Your task to perform on an android device: toggle javascript in the chrome app Image 0: 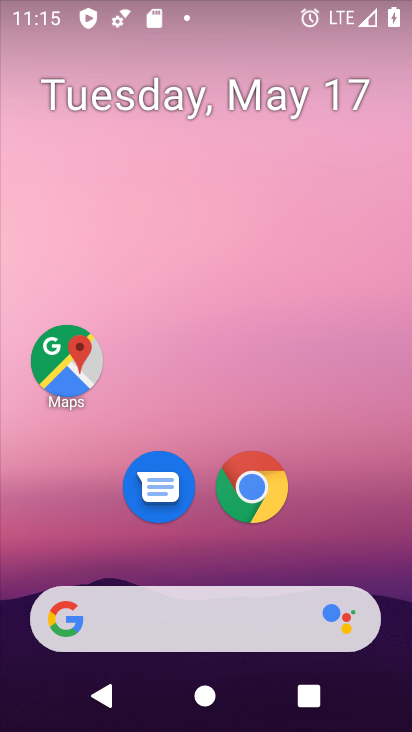
Step 0: press home button
Your task to perform on an android device: toggle javascript in the chrome app Image 1: 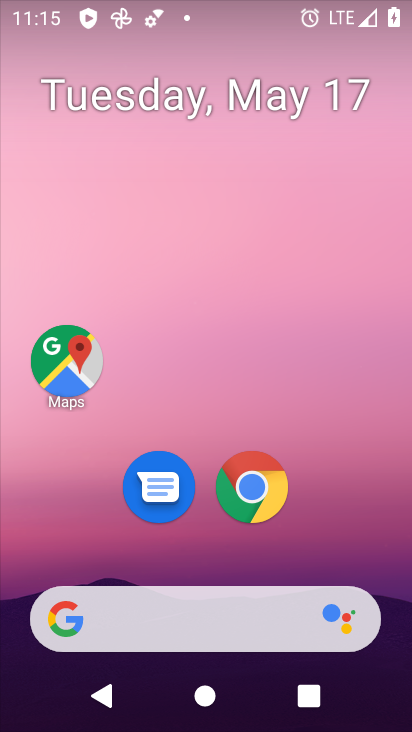
Step 1: click (244, 515)
Your task to perform on an android device: toggle javascript in the chrome app Image 2: 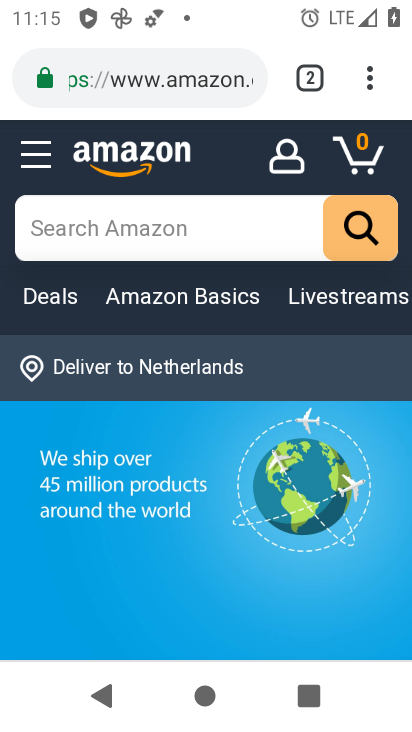
Step 2: drag from (366, 61) to (293, 558)
Your task to perform on an android device: toggle javascript in the chrome app Image 3: 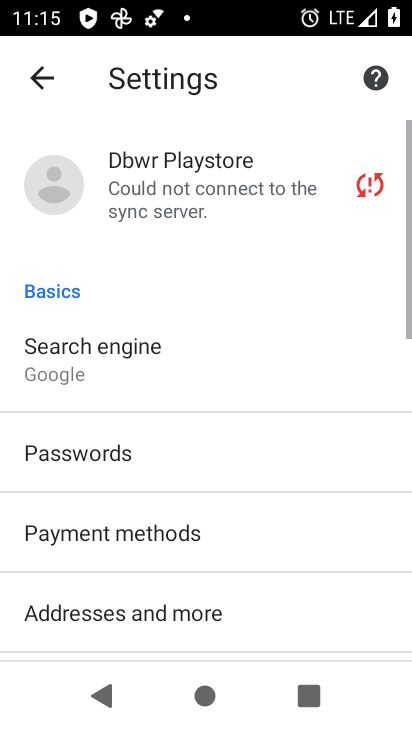
Step 3: drag from (285, 538) to (287, 174)
Your task to perform on an android device: toggle javascript in the chrome app Image 4: 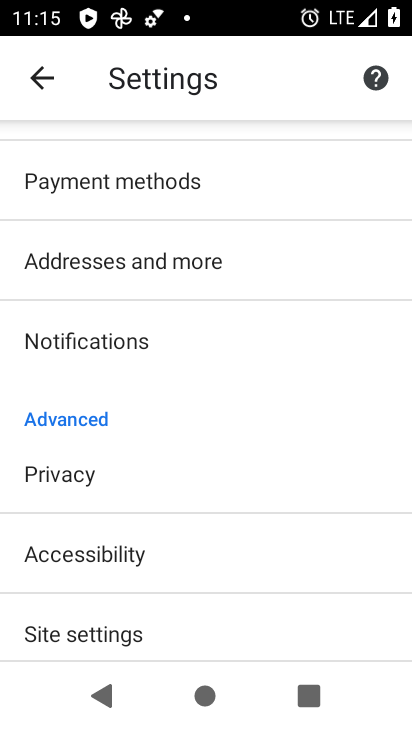
Step 4: click (24, 622)
Your task to perform on an android device: toggle javascript in the chrome app Image 5: 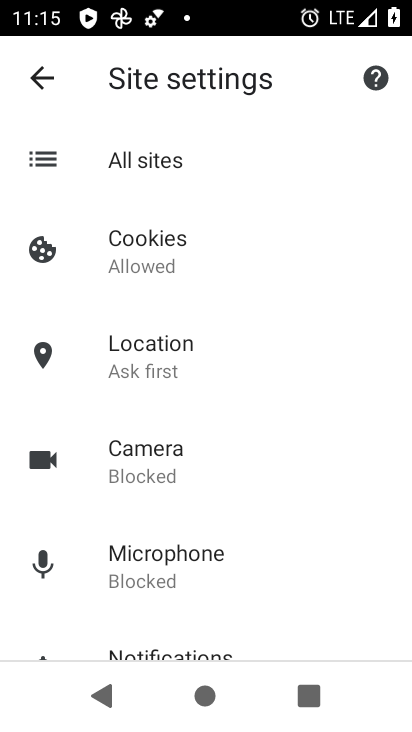
Step 5: drag from (107, 606) to (123, 346)
Your task to perform on an android device: toggle javascript in the chrome app Image 6: 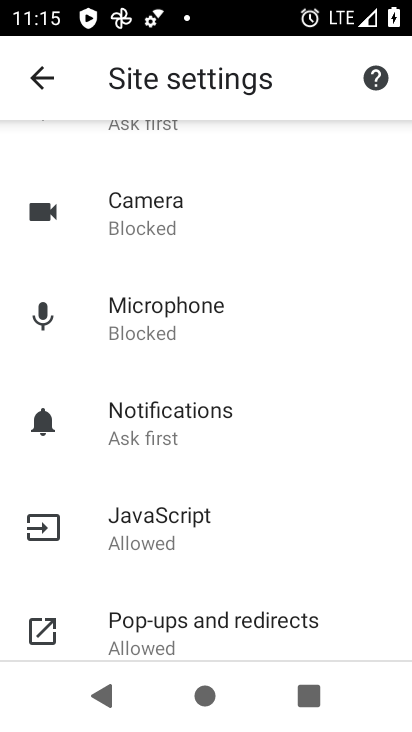
Step 6: click (148, 531)
Your task to perform on an android device: toggle javascript in the chrome app Image 7: 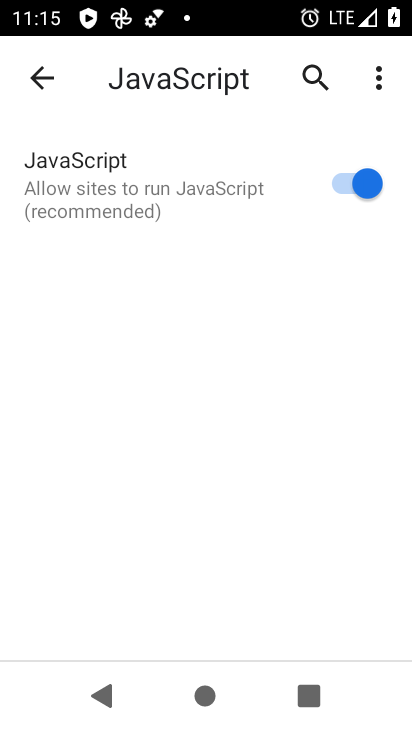
Step 7: click (172, 212)
Your task to perform on an android device: toggle javascript in the chrome app Image 8: 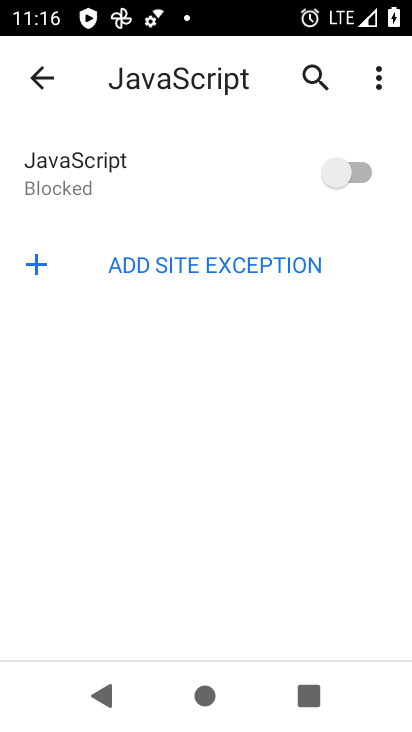
Step 8: task complete